Your task to perform on an android device: What is the news today? Image 0: 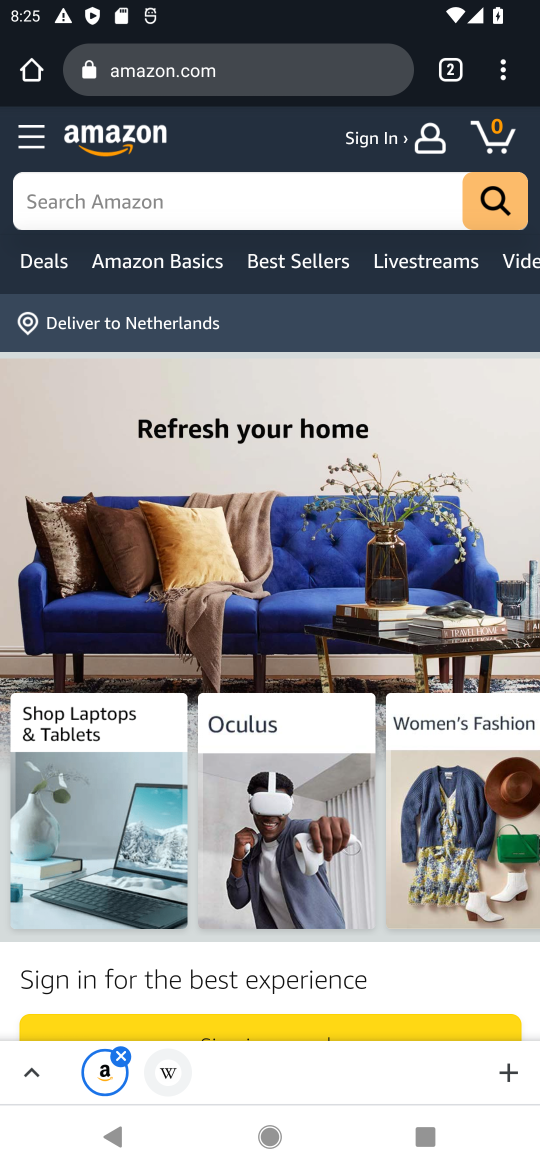
Step 0: press home button
Your task to perform on an android device: What is the news today? Image 1: 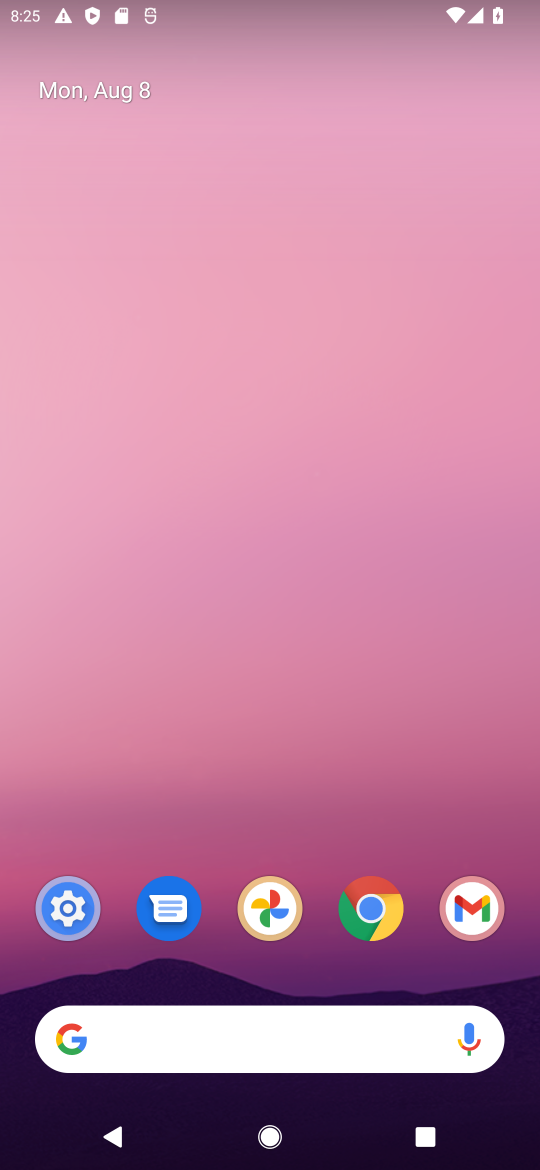
Step 1: click (130, 1047)
Your task to perform on an android device: What is the news today? Image 2: 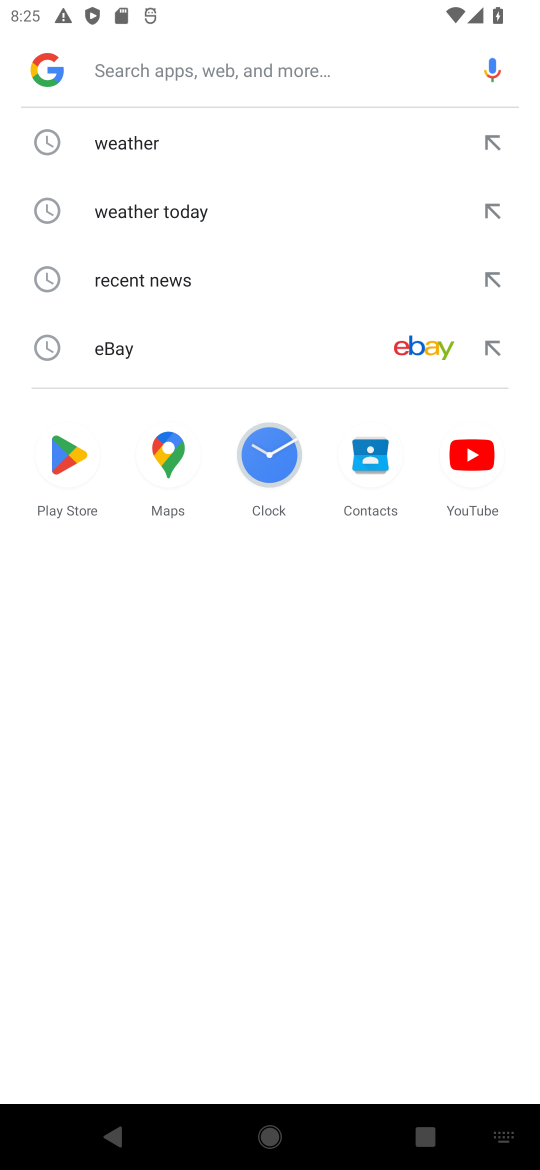
Step 2: click (170, 291)
Your task to perform on an android device: What is the news today? Image 3: 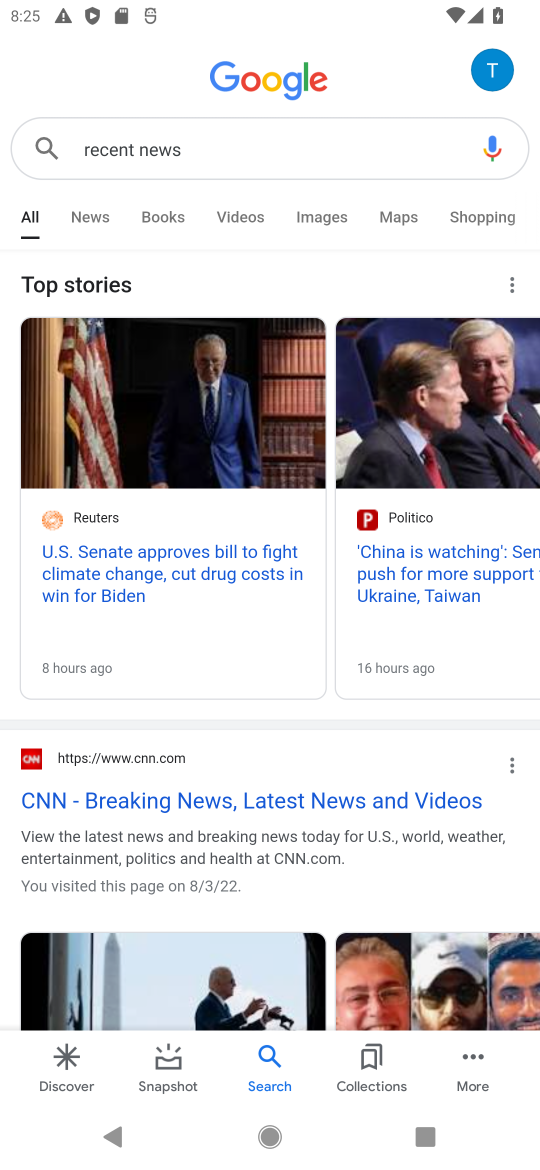
Step 3: task complete